Your task to perform on an android device: Toggle the flashlight Image 0: 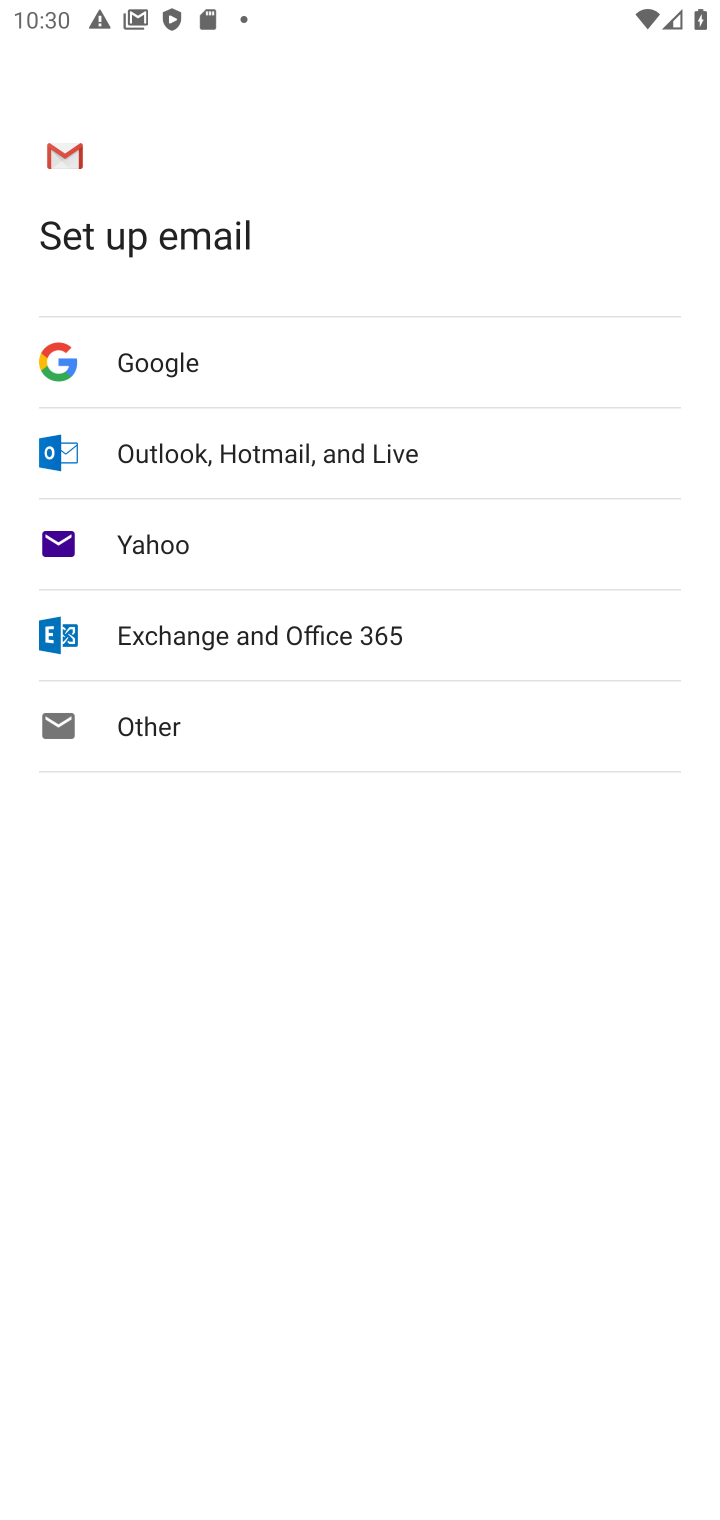
Step 0: task impossible